Your task to perform on an android device: Do I have any events today? Image 0: 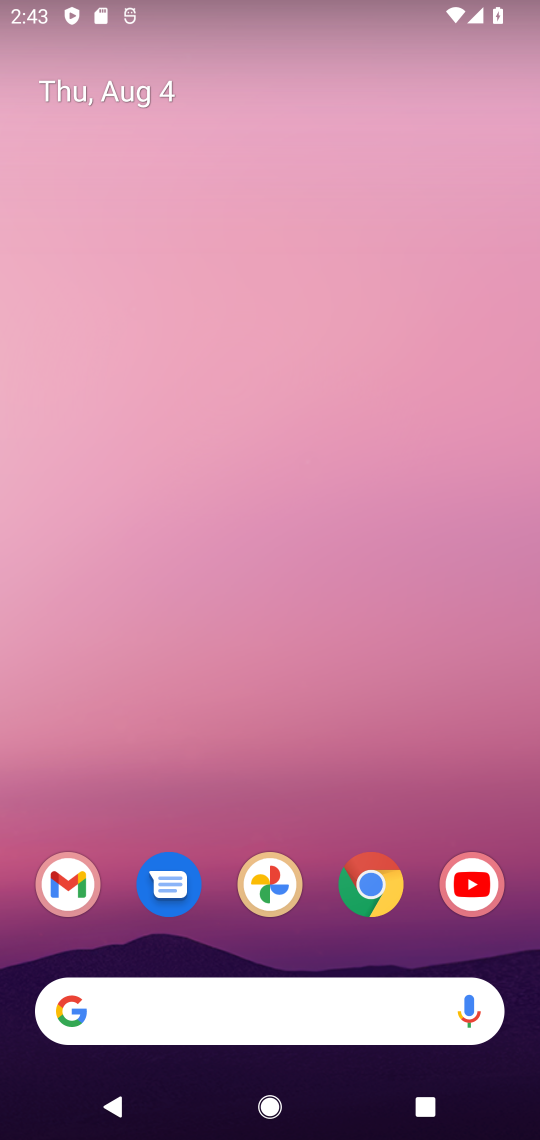
Step 0: drag from (217, 1006) to (229, 429)
Your task to perform on an android device: Do I have any events today? Image 1: 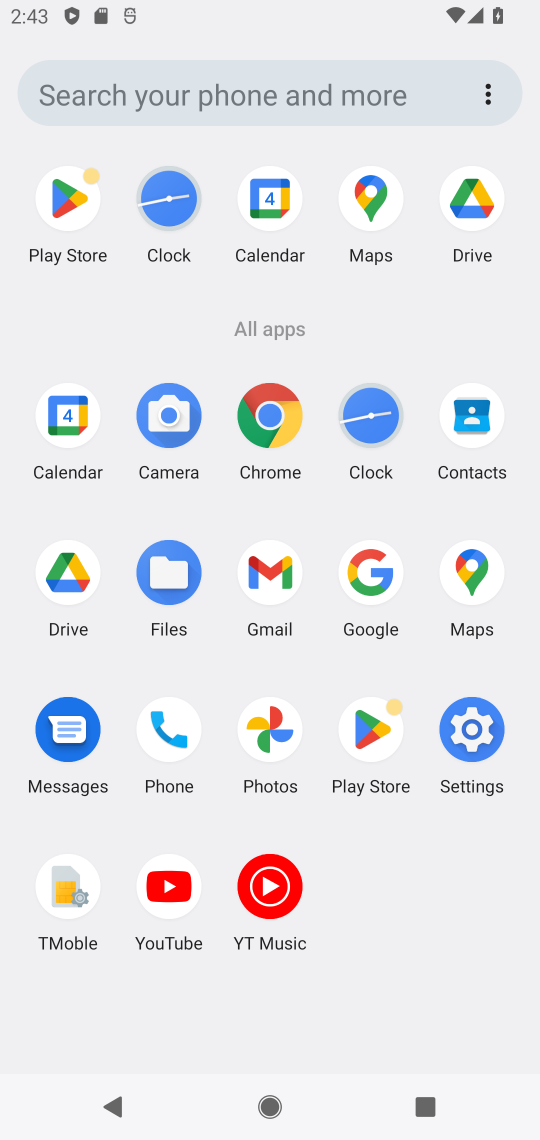
Step 1: click (472, 426)
Your task to perform on an android device: Do I have any events today? Image 2: 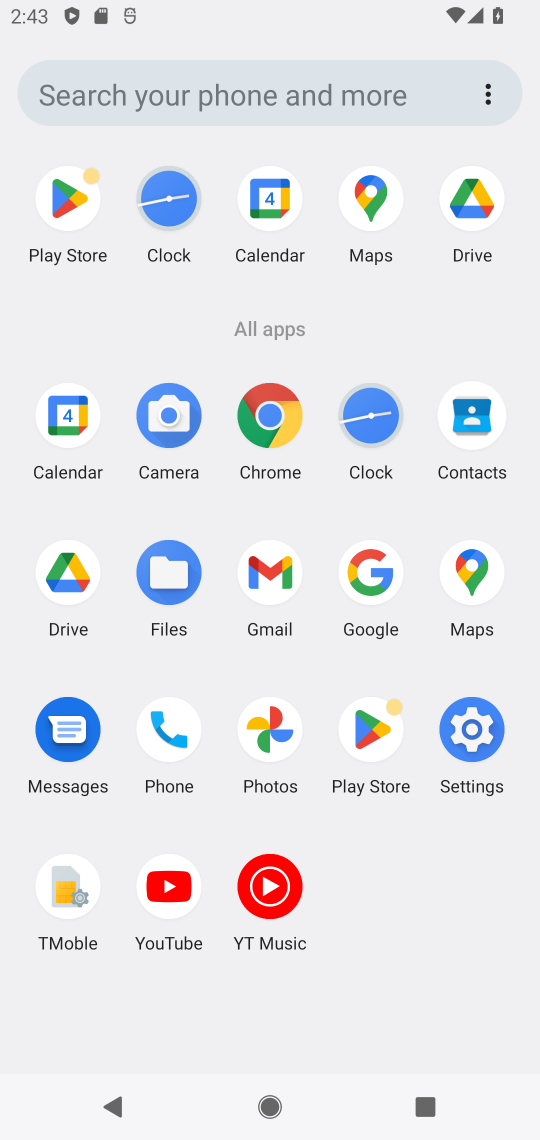
Step 2: drag from (472, 426) to (15, 493)
Your task to perform on an android device: Do I have any events today? Image 3: 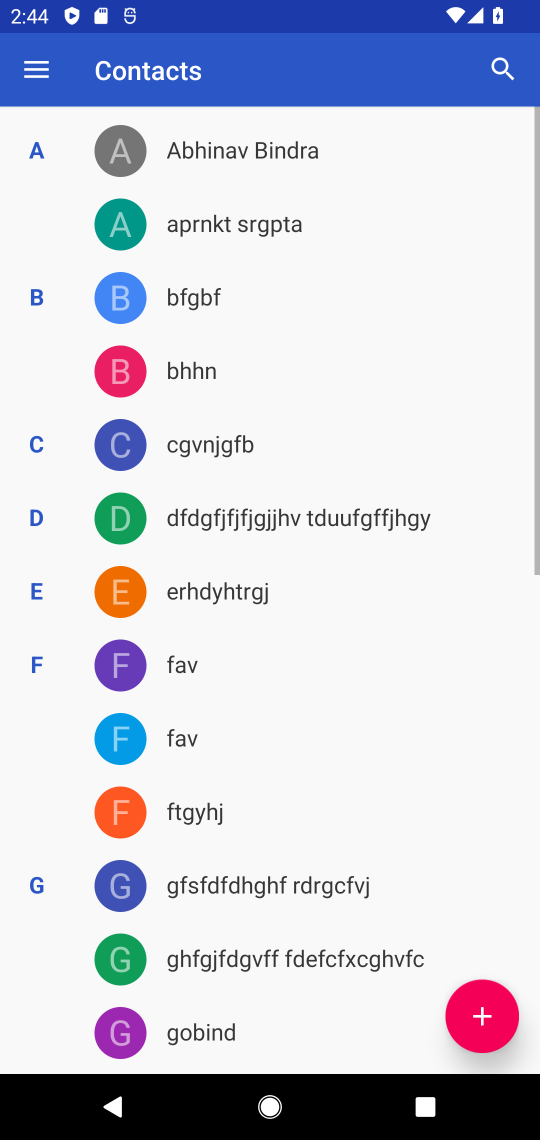
Step 3: press home button
Your task to perform on an android device: Do I have any events today? Image 4: 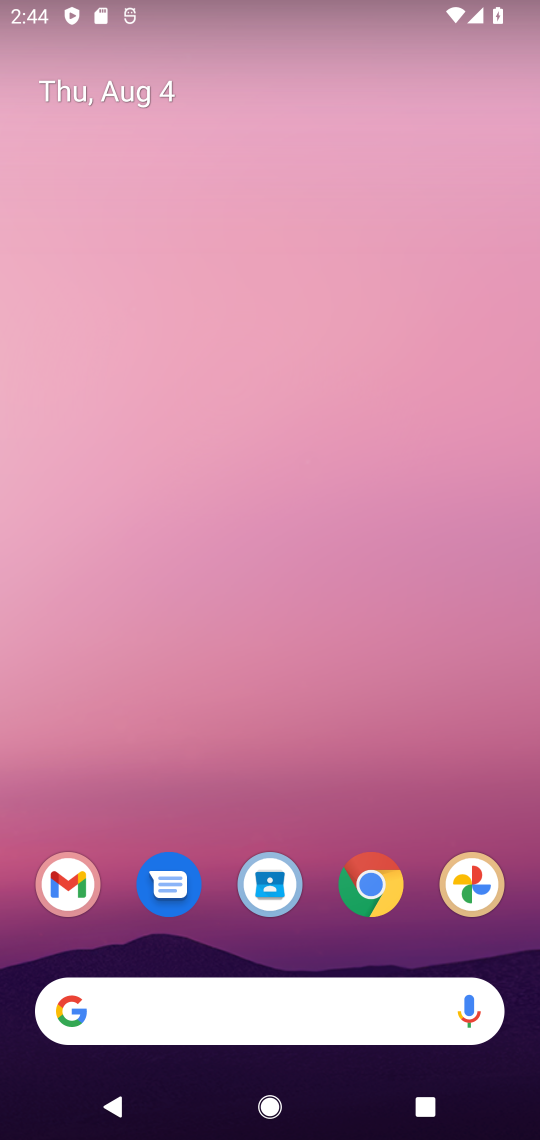
Step 4: drag from (248, 845) to (252, 249)
Your task to perform on an android device: Do I have any events today? Image 5: 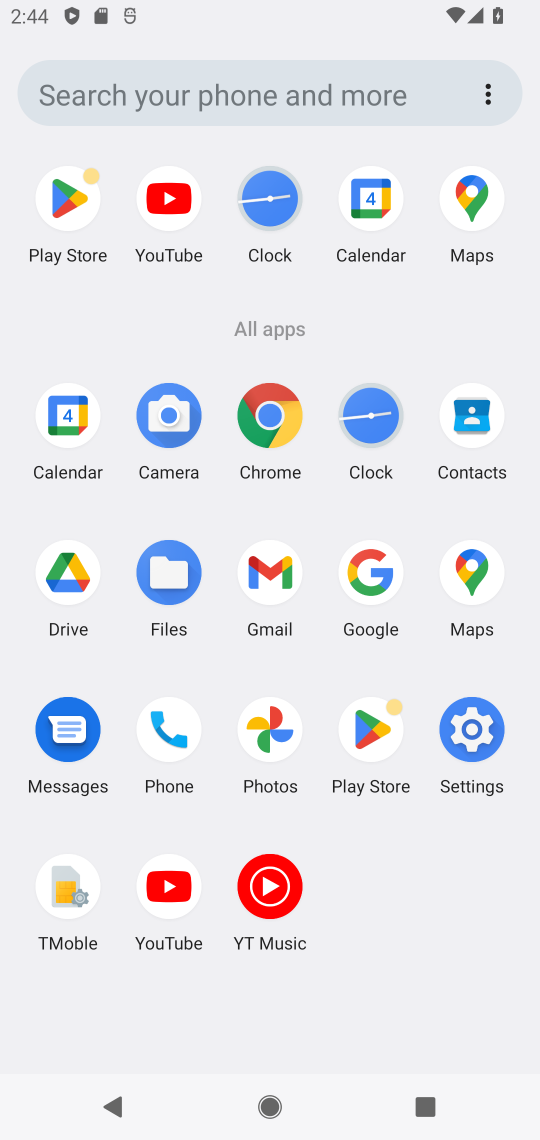
Step 5: click (66, 414)
Your task to perform on an android device: Do I have any events today? Image 6: 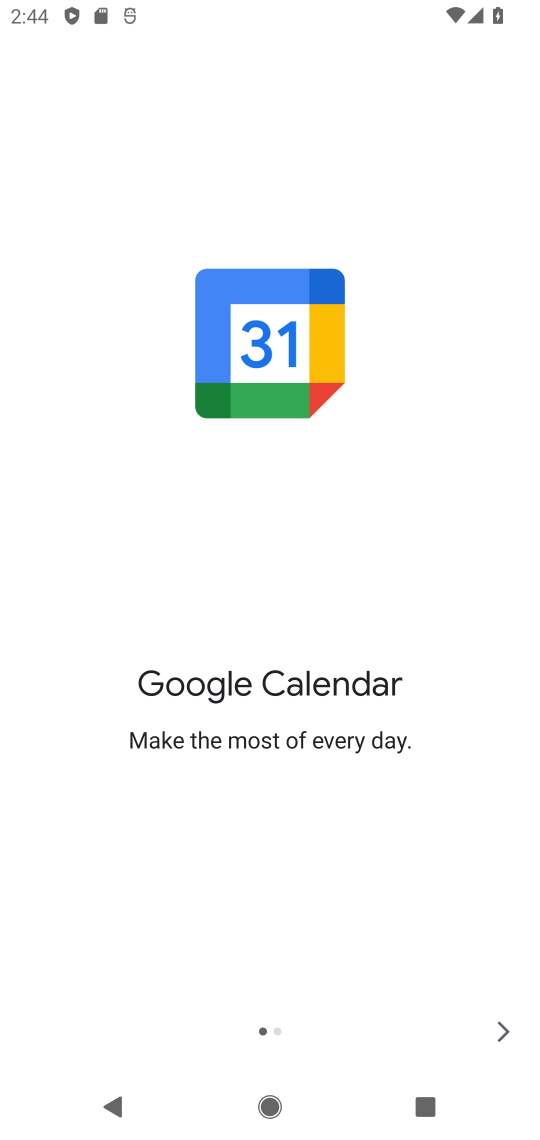
Step 6: click (503, 1030)
Your task to perform on an android device: Do I have any events today? Image 7: 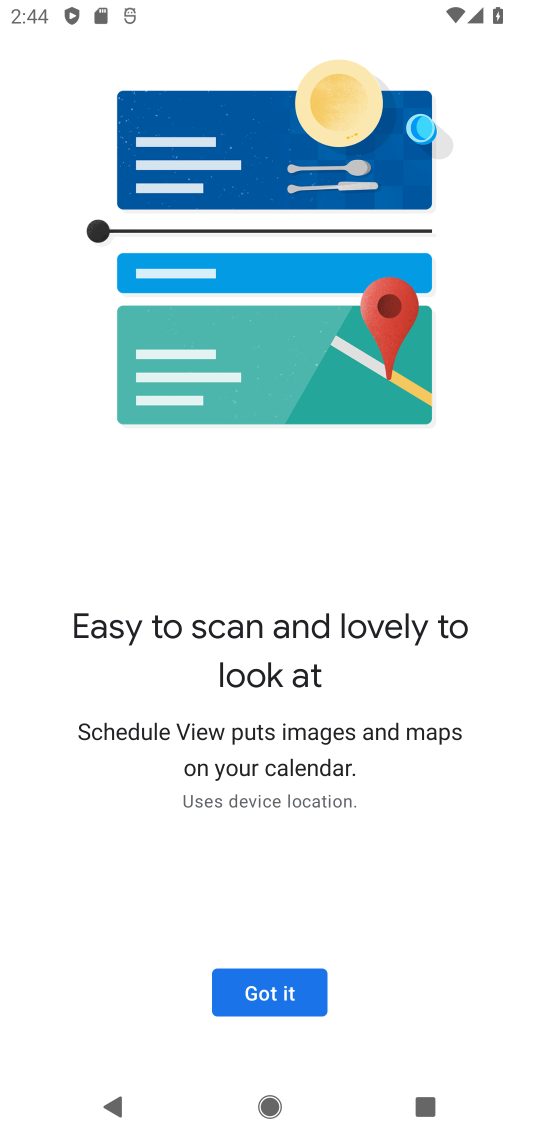
Step 7: click (503, 1030)
Your task to perform on an android device: Do I have any events today? Image 8: 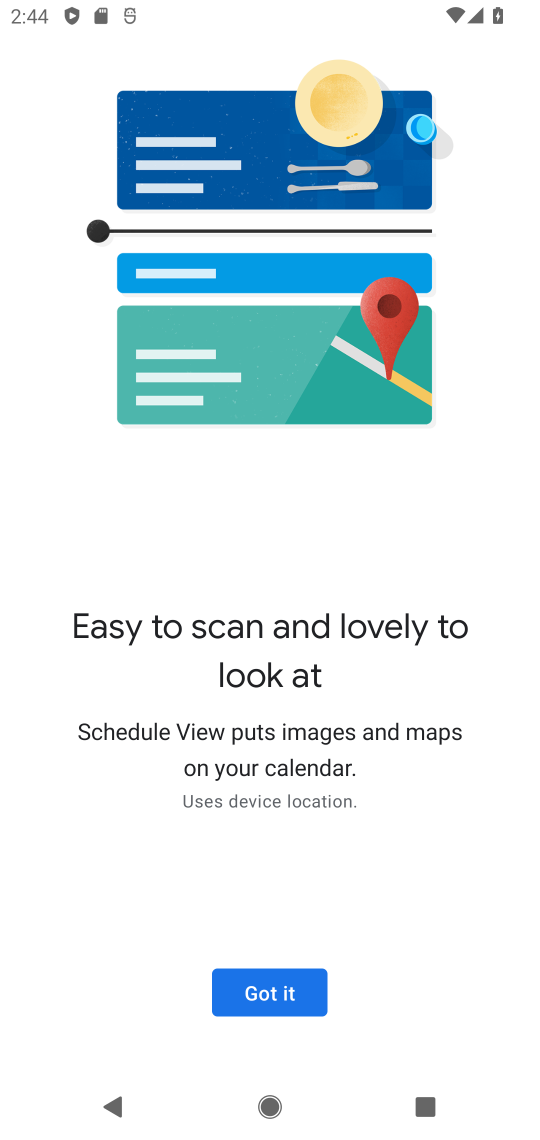
Step 8: click (307, 973)
Your task to perform on an android device: Do I have any events today? Image 9: 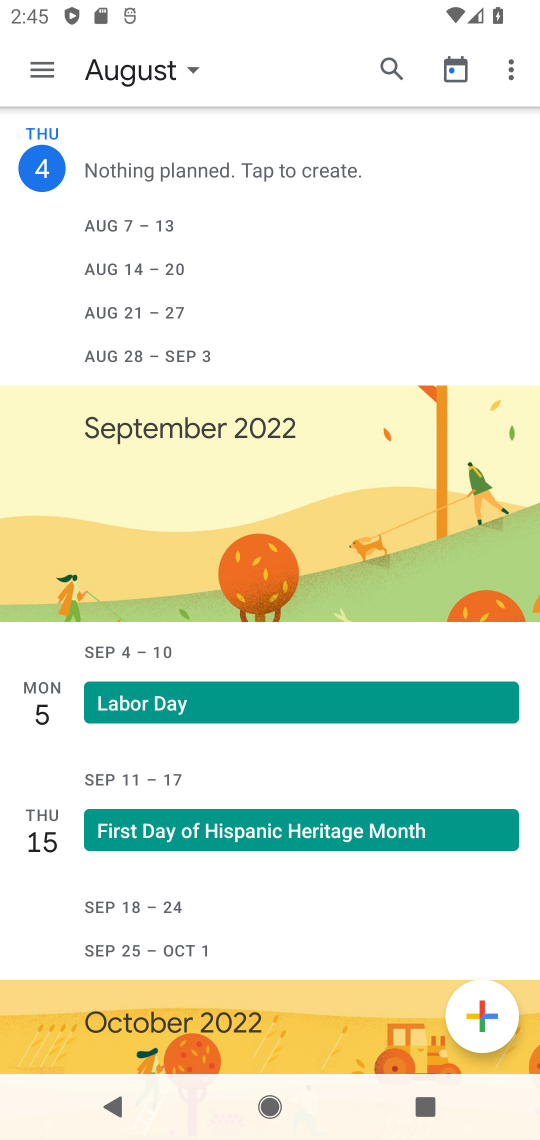
Step 9: task complete